Your task to perform on an android device: Open Google Chrome and click the shortcut for Amazon.com Image 0: 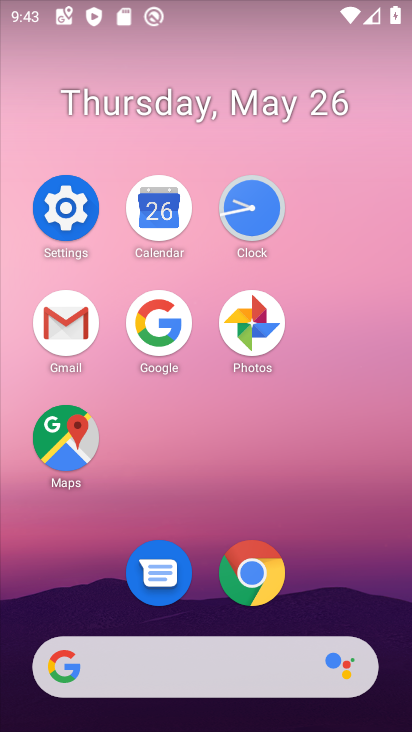
Step 0: click (272, 563)
Your task to perform on an android device: Open Google Chrome and click the shortcut for Amazon.com Image 1: 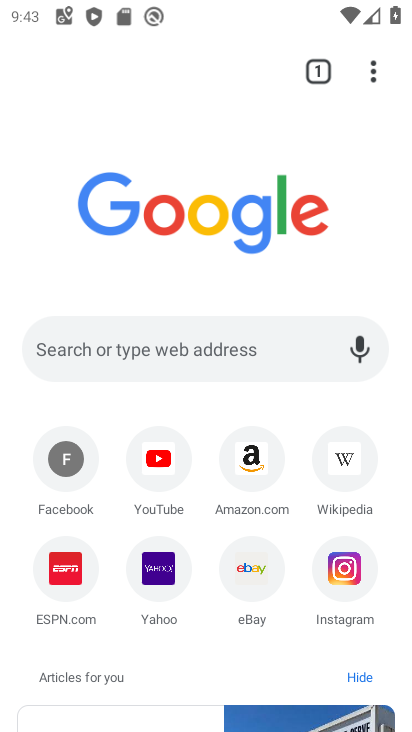
Step 1: click (265, 464)
Your task to perform on an android device: Open Google Chrome and click the shortcut for Amazon.com Image 2: 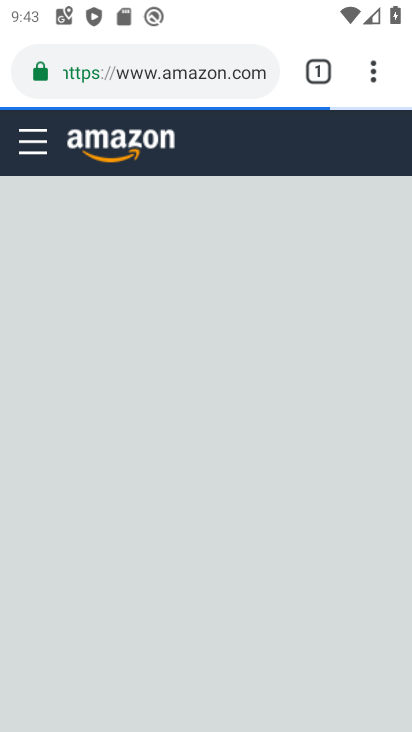
Step 2: click (372, 73)
Your task to perform on an android device: Open Google Chrome and click the shortcut for Amazon.com Image 3: 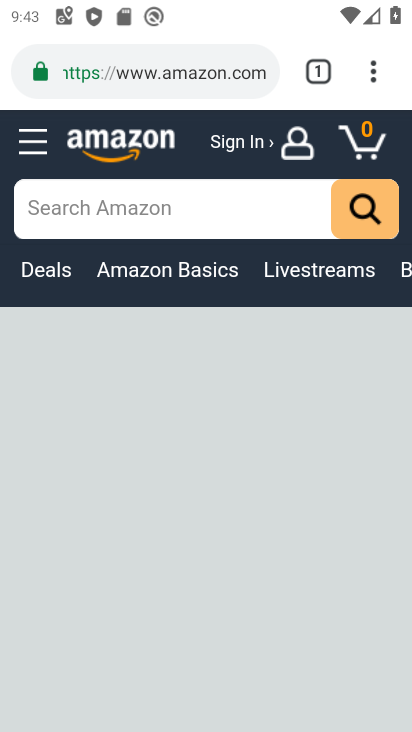
Step 3: click (385, 73)
Your task to perform on an android device: Open Google Chrome and click the shortcut for Amazon.com Image 4: 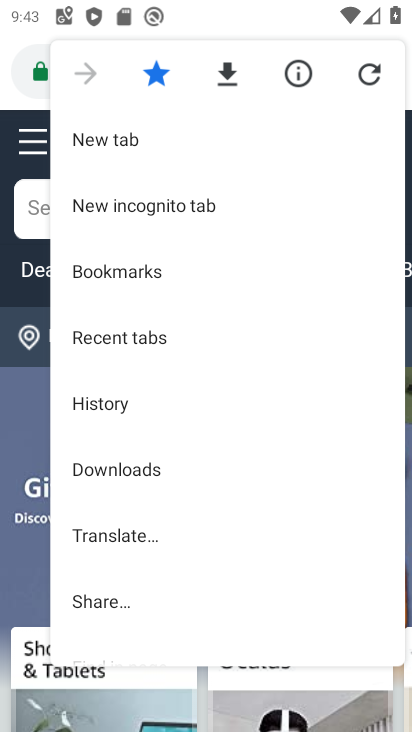
Step 4: drag from (181, 525) to (211, 176)
Your task to perform on an android device: Open Google Chrome and click the shortcut for Amazon.com Image 5: 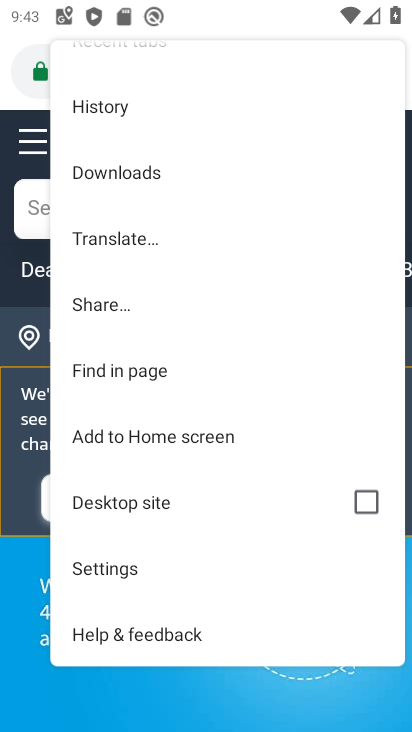
Step 5: click (238, 438)
Your task to perform on an android device: Open Google Chrome and click the shortcut for Amazon.com Image 6: 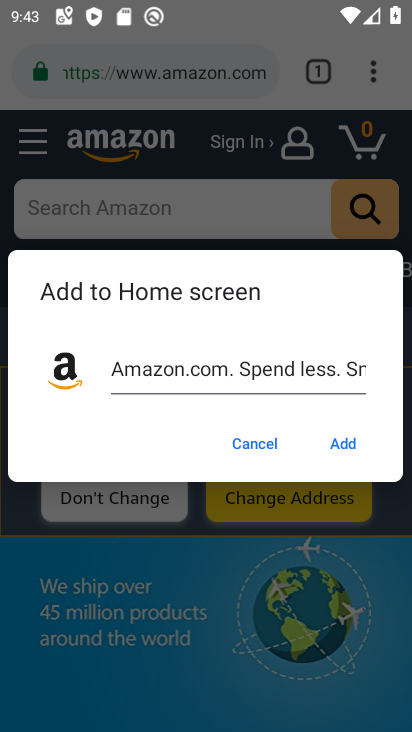
Step 6: click (354, 438)
Your task to perform on an android device: Open Google Chrome and click the shortcut for Amazon.com Image 7: 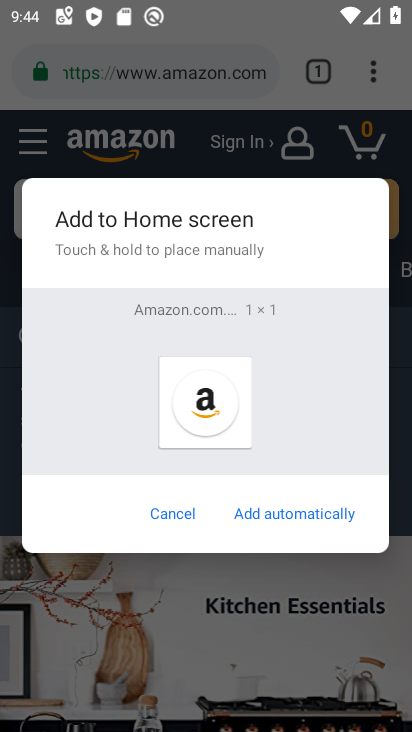
Step 7: click (353, 502)
Your task to perform on an android device: Open Google Chrome and click the shortcut for Amazon.com Image 8: 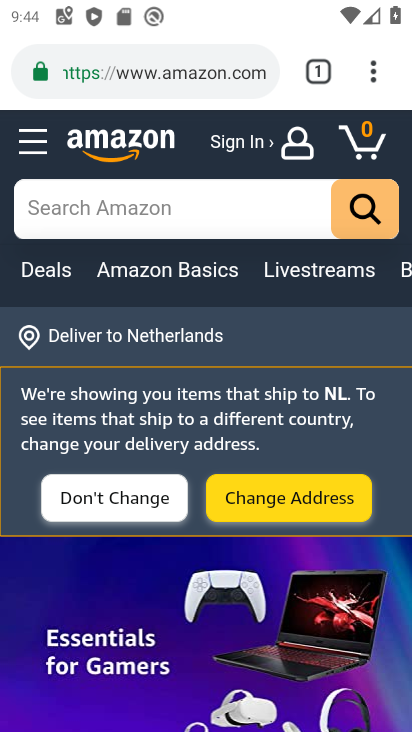
Step 8: task complete